Your task to perform on an android device: set default search engine in the chrome app Image 0: 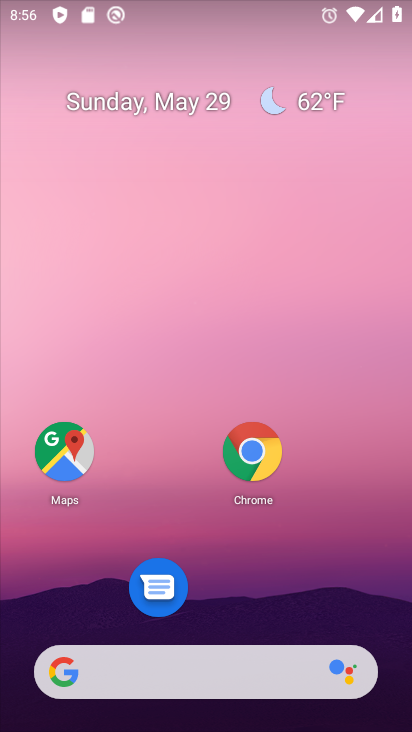
Step 0: click (251, 453)
Your task to perform on an android device: set default search engine in the chrome app Image 1: 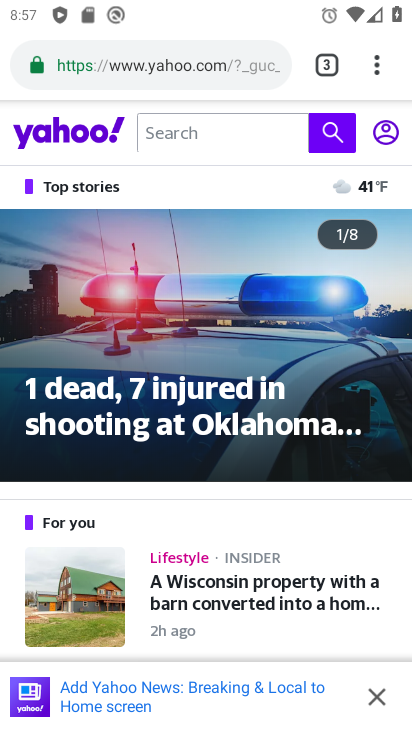
Step 1: click (386, 66)
Your task to perform on an android device: set default search engine in the chrome app Image 2: 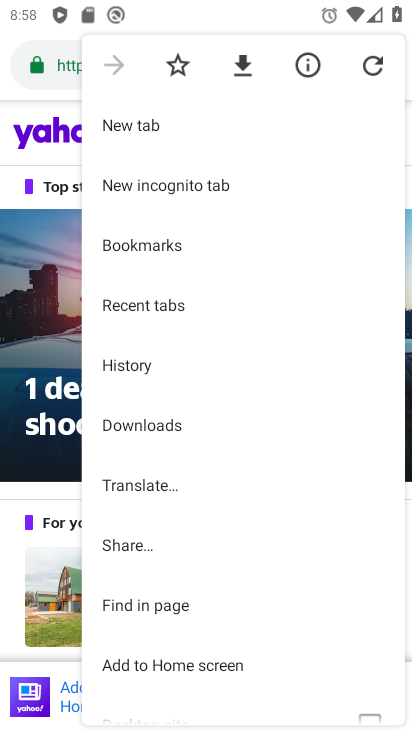
Step 2: drag from (165, 613) to (236, 179)
Your task to perform on an android device: set default search engine in the chrome app Image 3: 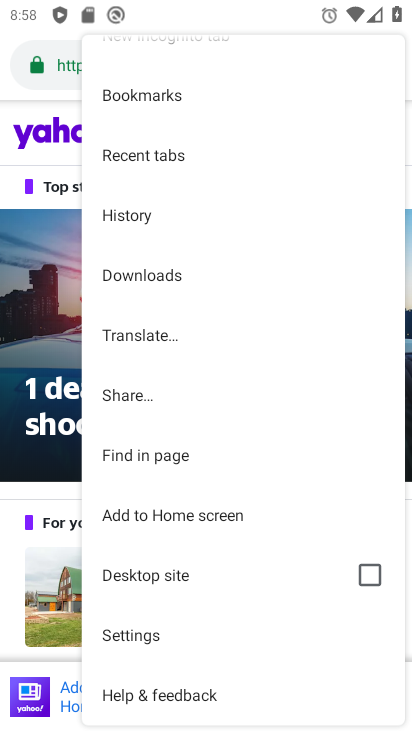
Step 3: click (150, 632)
Your task to perform on an android device: set default search engine in the chrome app Image 4: 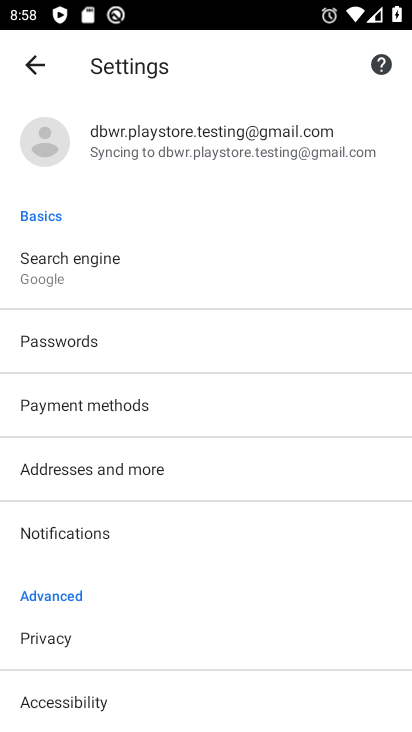
Step 4: drag from (104, 662) to (185, 291)
Your task to perform on an android device: set default search engine in the chrome app Image 5: 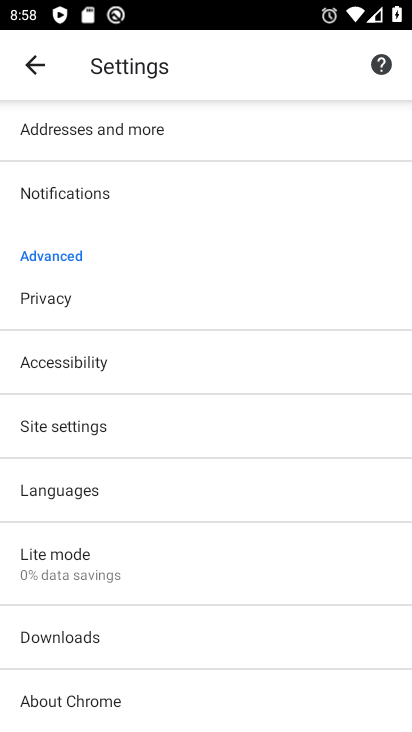
Step 5: drag from (118, 638) to (237, 307)
Your task to perform on an android device: set default search engine in the chrome app Image 6: 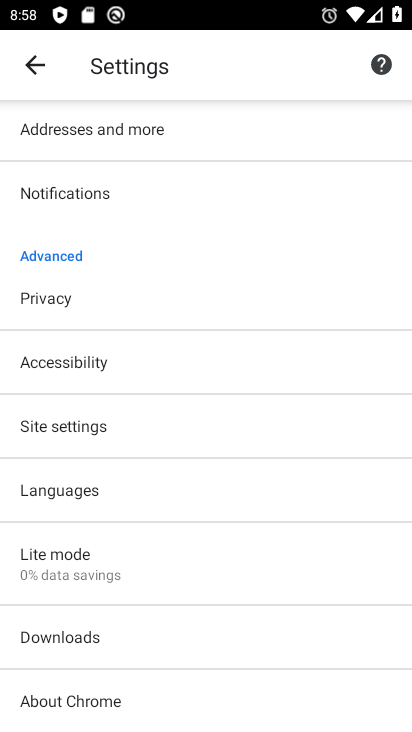
Step 6: click (103, 447)
Your task to perform on an android device: set default search engine in the chrome app Image 7: 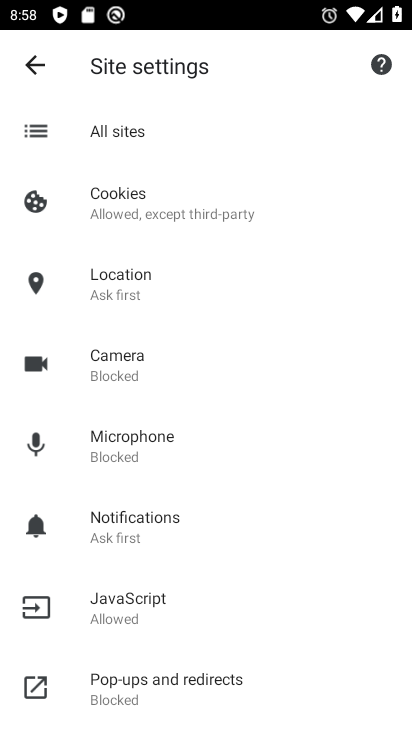
Step 7: drag from (149, 631) to (216, 281)
Your task to perform on an android device: set default search engine in the chrome app Image 8: 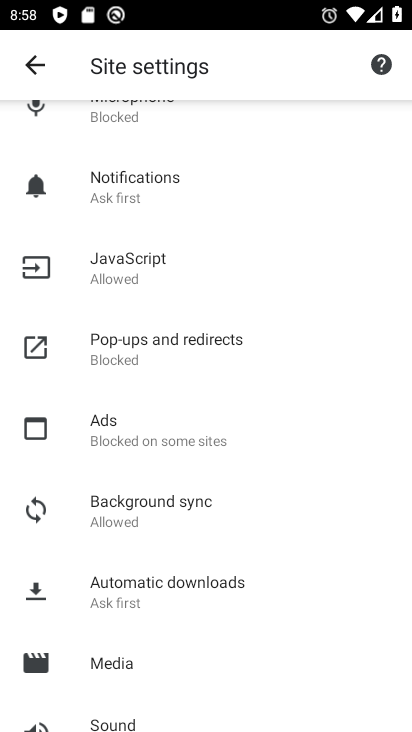
Step 8: drag from (136, 684) to (190, 323)
Your task to perform on an android device: set default search engine in the chrome app Image 9: 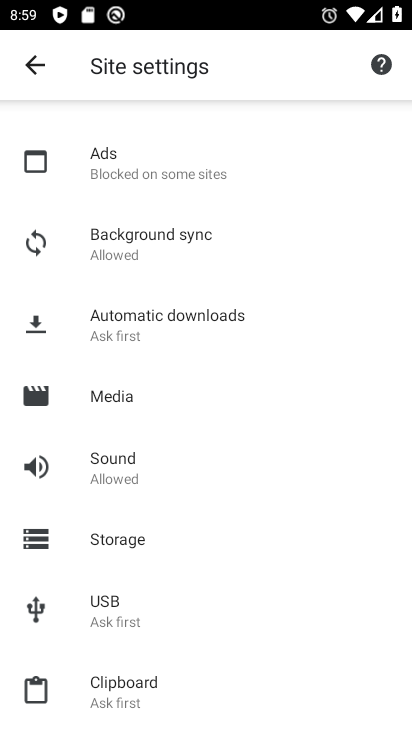
Step 9: click (44, 68)
Your task to perform on an android device: set default search engine in the chrome app Image 10: 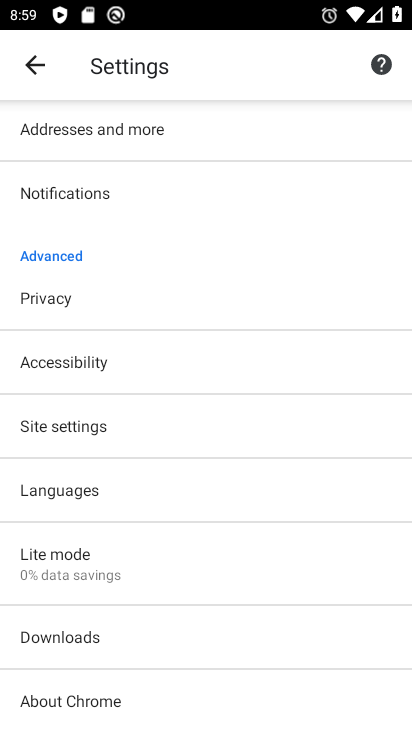
Step 10: drag from (176, 250) to (164, 703)
Your task to perform on an android device: set default search engine in the chrome app Image 11: 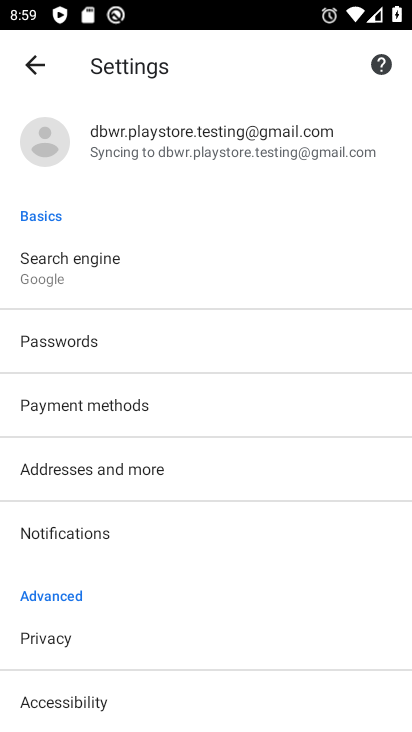
Step 11: click (102, 257)
Your task to perform on an android device: set default search engine in the chrome app Image 12: 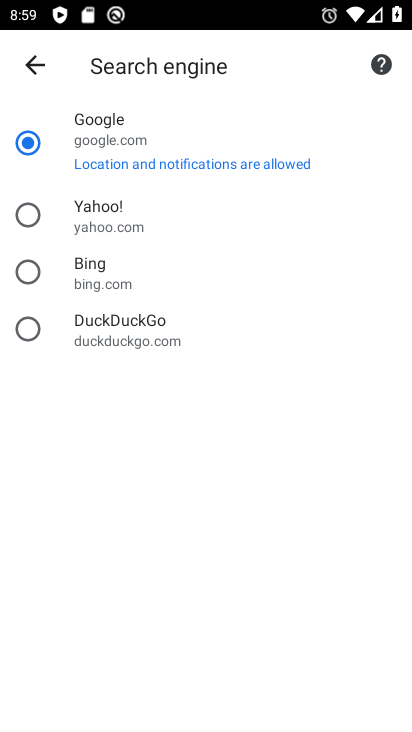
Step 12: click (102, 257)
Your task to perform on an android device: set default search engine in the chrome app Image 13: 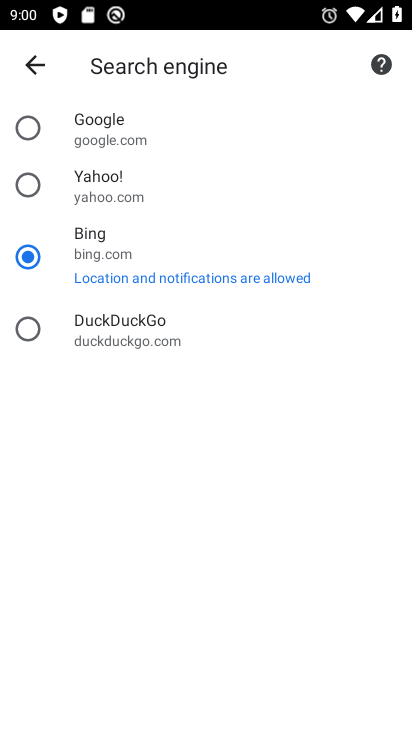
Step 13: task complete